Your task to perform on an android device: all mails in gmail Image 0: 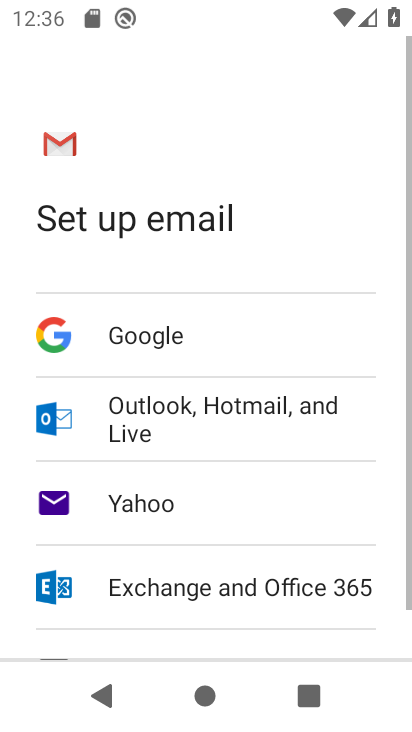
Step 0: press home button
Your task to perform on an android device: all mails in gmail Image 1: 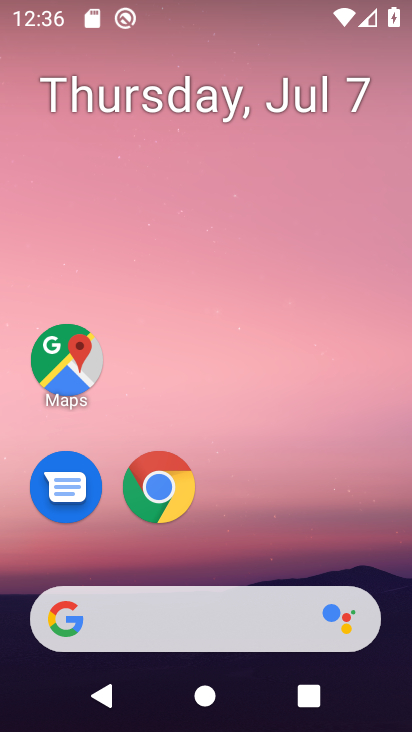
Step 1: drag from (329, 543) to (352, 77)
Your task to perform on an android device: all mails in gmail Image 2: 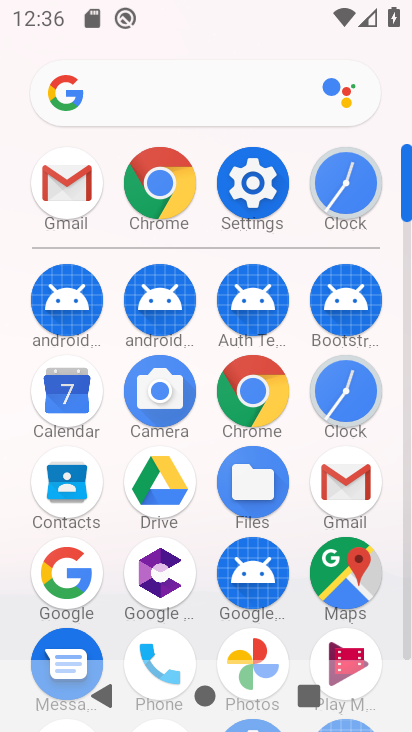
Step 2: click (349, 481)
Your task to perform on an android device: all mails in gmail Image 3: 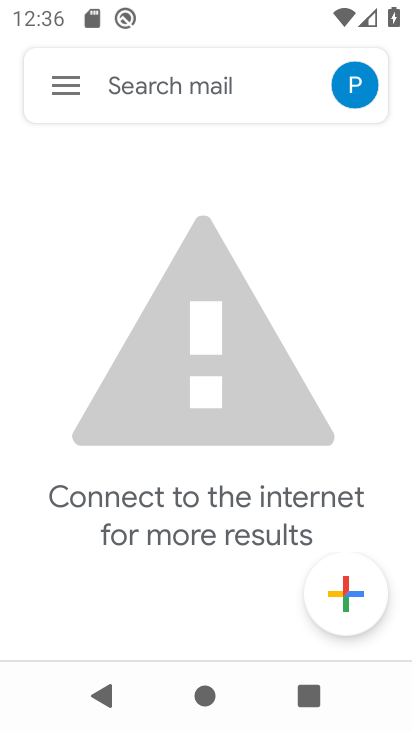
Step 3: click (70, 96)
Your task to perform on an android device: all mails in gmail Image 4: 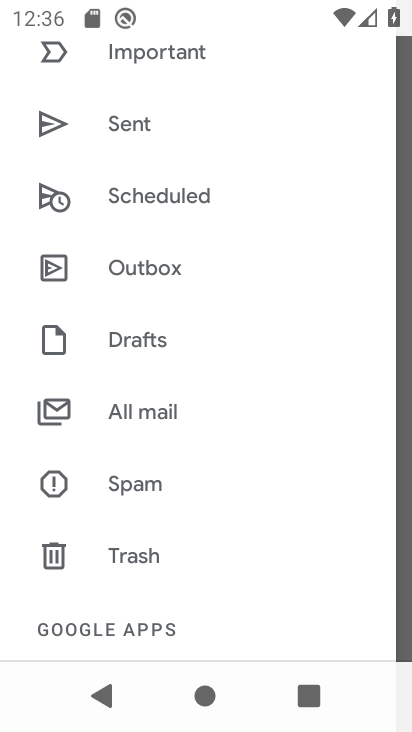
Step 4: drag from (310, 174) to (325, 322)
Your task to perform on an android device: all mails in gmail Image 5: 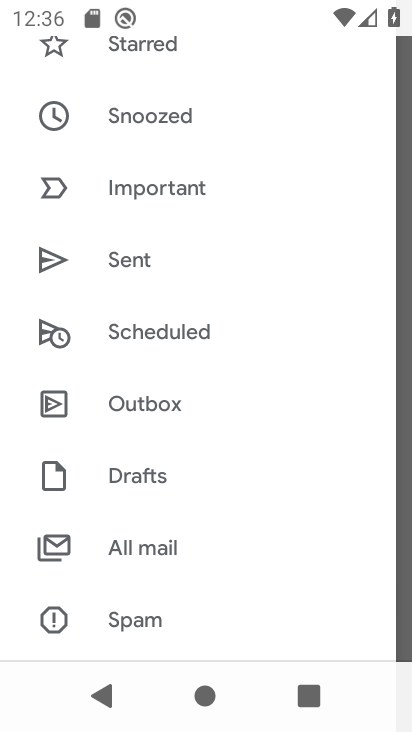
Step 5: drag from (314, 142) to (319, 295)
Your task to perform on an android device: all mails in gmail Image 6: 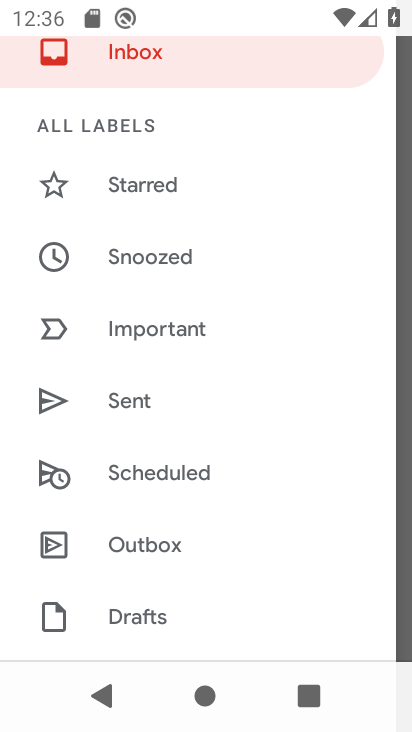
Step 6: drag from (313, 231) to (338, 478)
Your task to perform on an android device: all mails in gmail Image 7: 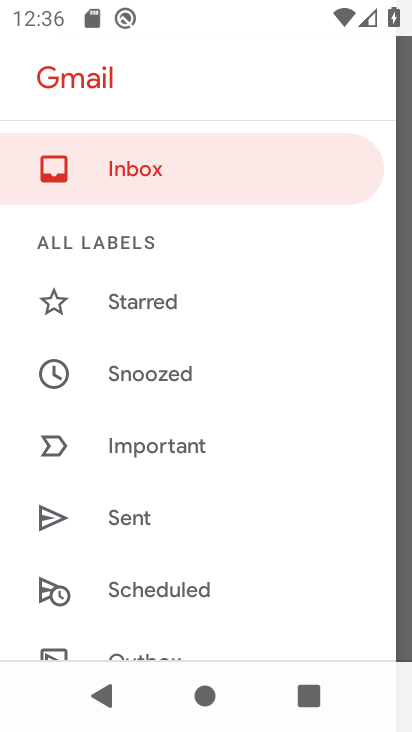
Step 7: drag from (322, 552) to (318, 362)
Your task to perform on an android device: all mails in gmail Image 8: 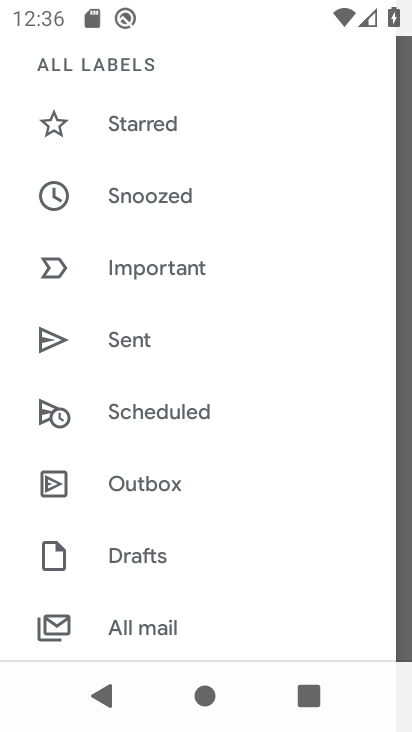
Step 8: drag from (322, 555) to (314, 373)
Your task to perform on an android device: all mails in gmail Image 9: 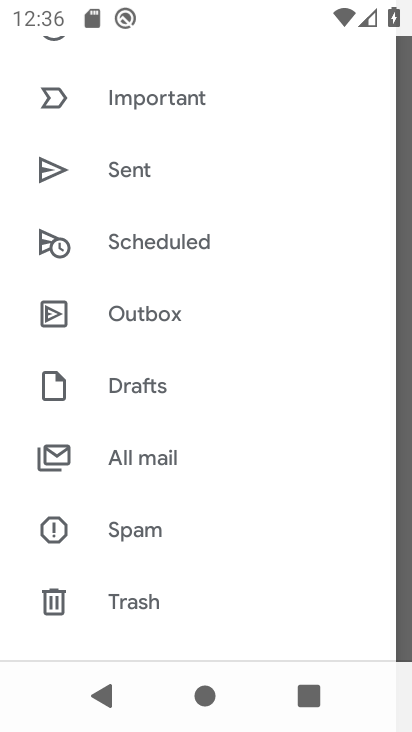
Step 9: drag from (296, 539) to (287, 311)
Your task to perform on an android device: all mails in gmail Image 10: 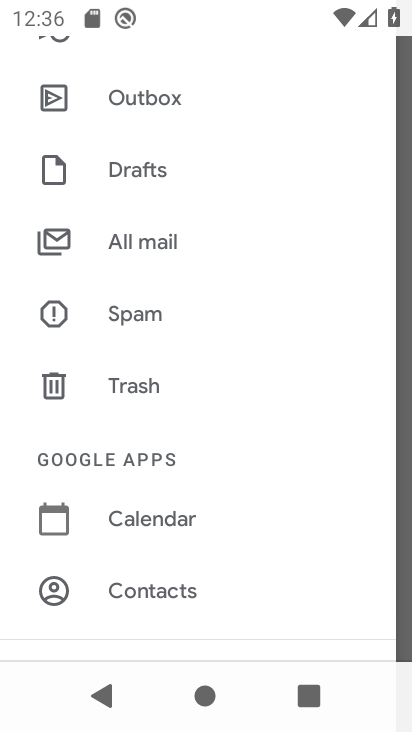
Step 10: click (180, 242)
Your task to perform on an android device: all mails in gmail Image 11: 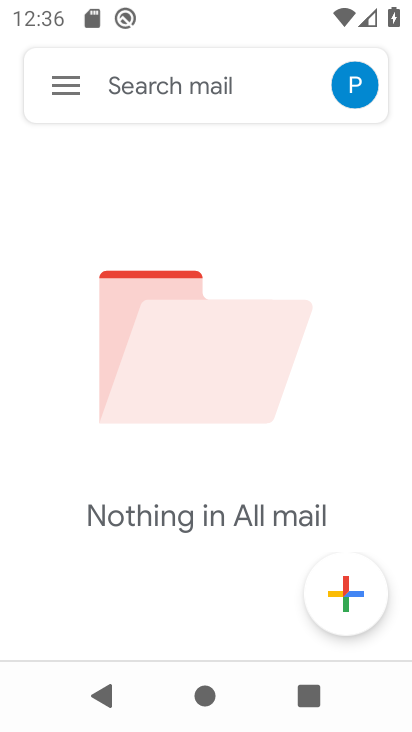
Step 11: task complete